Your task to perform on an android device: clear history in the chrome app Image 0: 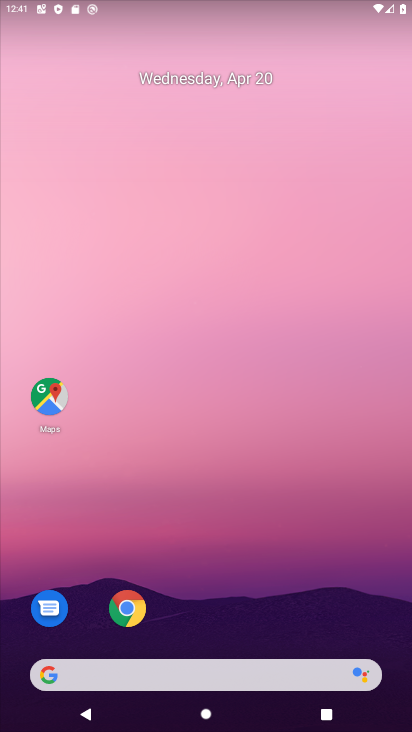
Step 0: click (126, 611)
Your task to perform on an android device: clear history in the chrome app Image 1: 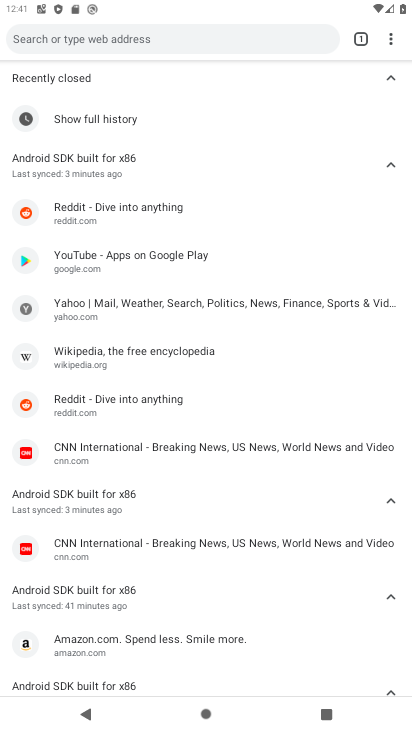
Step 1: click (385, 42)
Your task to perform on an android device: clear history in the chrome app Image 2: 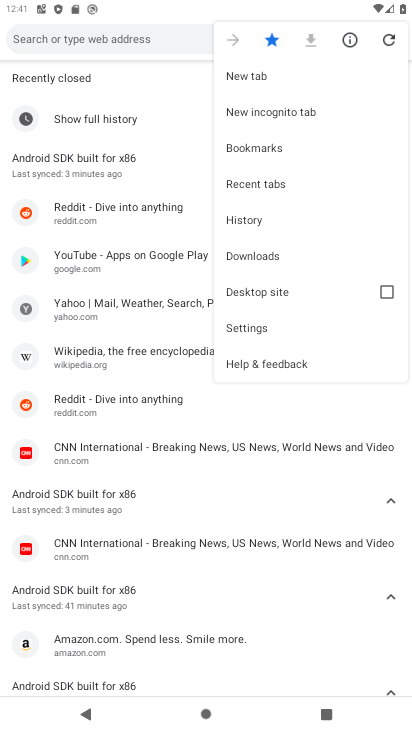
Step 2: click (306, 229)
Your task to perform on an android device: clear history in the chrome app Image 3: 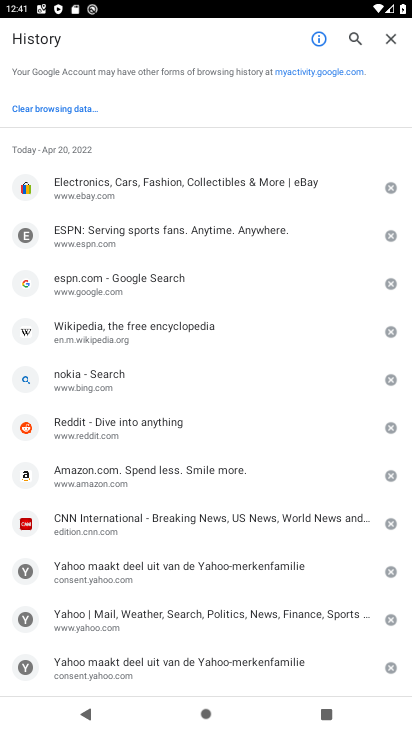
Step 3: click (65, 103)
Your task to perform on an android device: clear history in the chrome app Image 4: 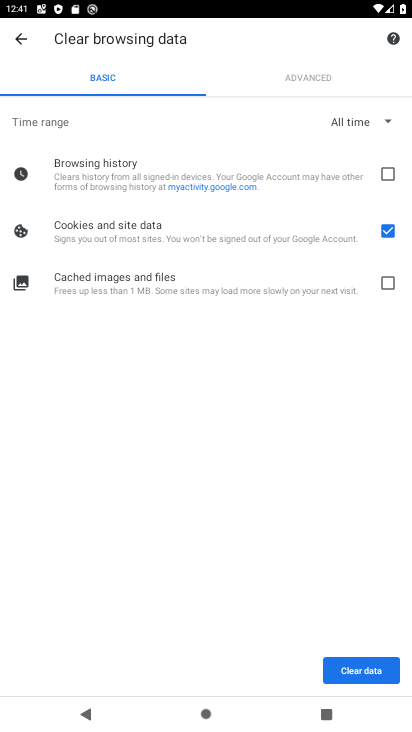
Step 4: click (382, 178)
Your task to perform on an android device: clear history in the chrome app Image 5: 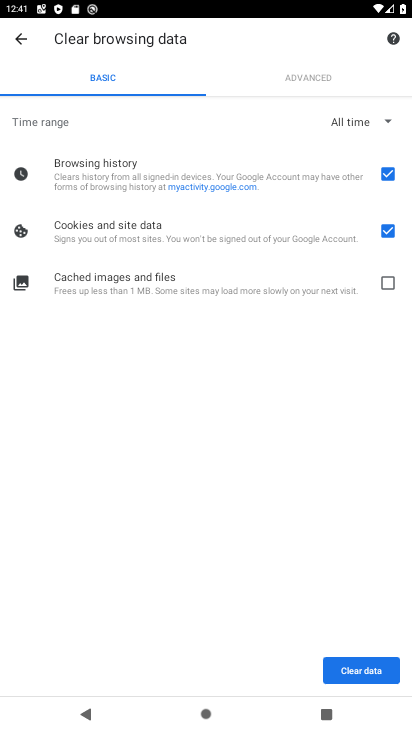
Step 5: click (389, 226)
Your task to perform on an android device: clear history in the chrome app Image 6: 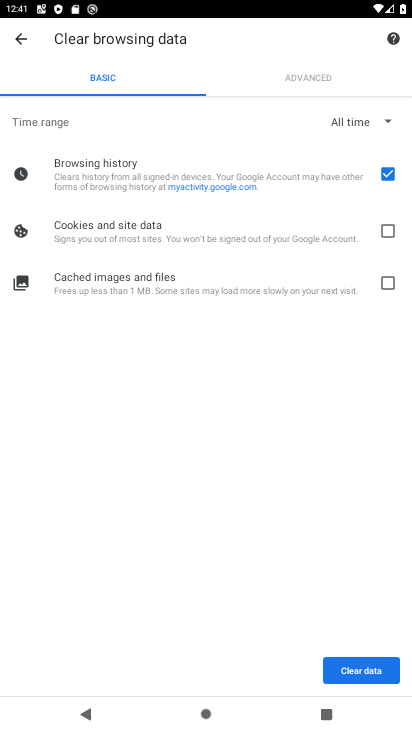
Step 6: click (384, 669)
Your task to perform on an android device: clear history in the chrome app Image 7: 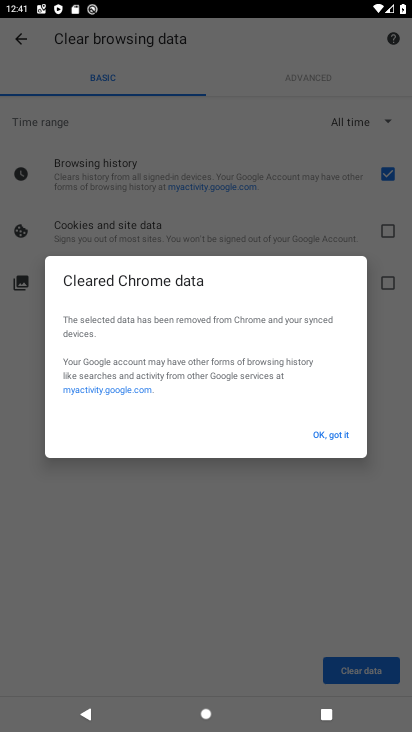
Step 7: click (324, 433)
Your task to perform on an android device: clear history in the chrome app Image 8: 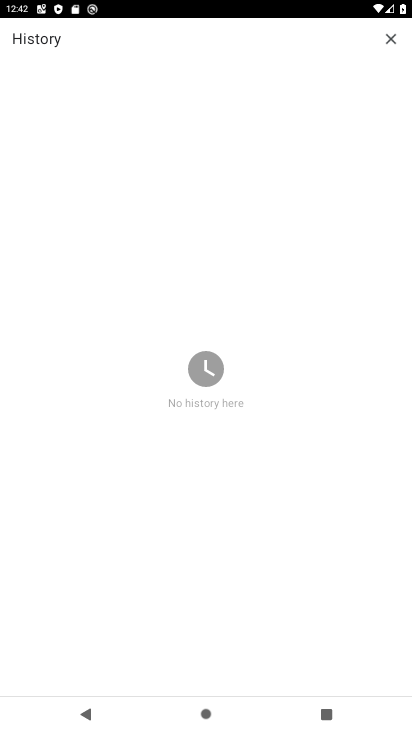
Step 8: task complete